Your task to perform on an android device: change the clock display to show seconds Image 0: 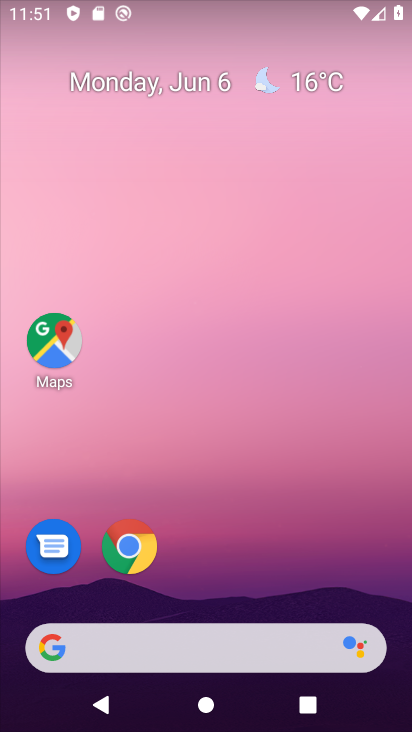
Step 0: drag from (204, 605) to (203, 107)
Your task to perform on an android device: change the clock display to show seconds Image 1: 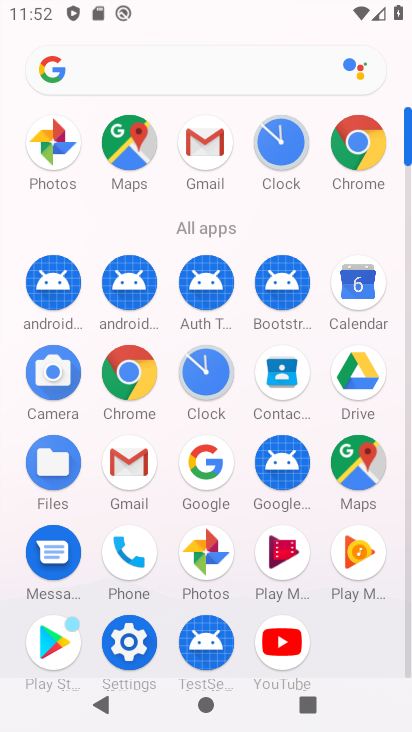
Step 1: click (215, 374)
Your task to perform on an android device: change the clock display to show seconds Image 2: 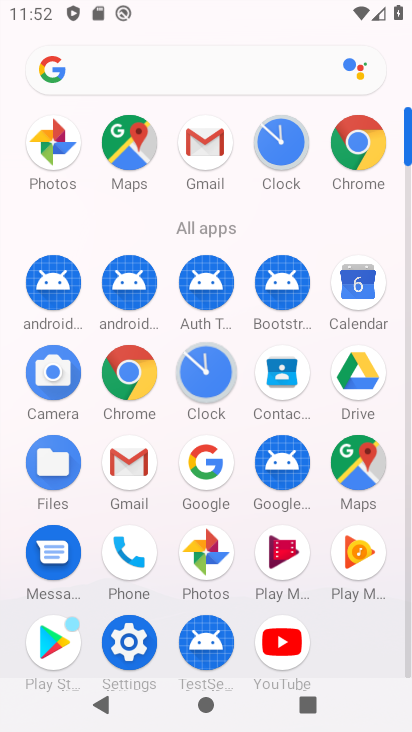
Step 2: click (215, 374)
Your task to perform on an android device: change the clock display to show seconds Image 3: 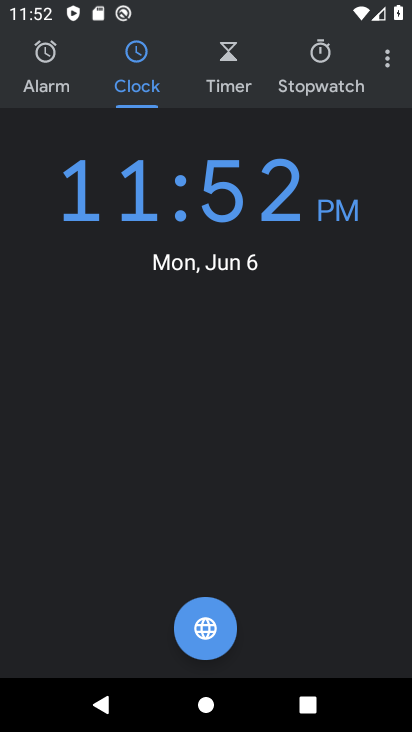
Step 3: click (392, 41)
Your task to perform on an android device: change the clock display to show seconds Image 4: 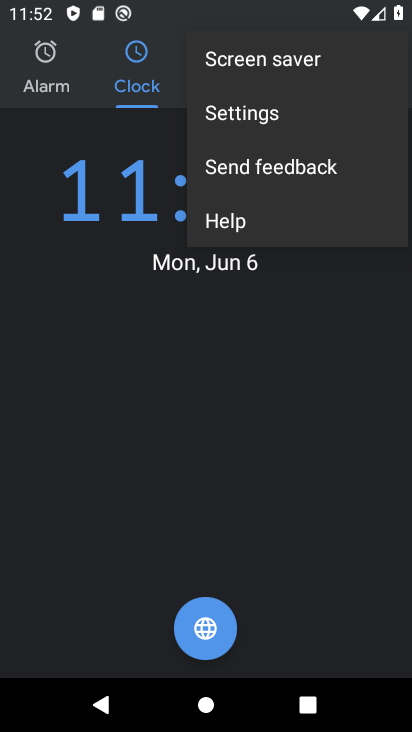
Step 4: click (268, 119)
Your task to perform on an android device: change the clock display to show seconds Image 5: 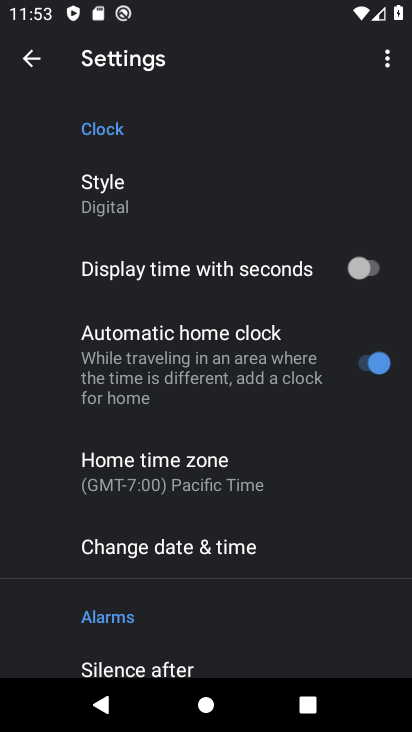
Step 5: drag from (260, 512) to (300, 84)
Your task to perform on an android device: change the clock display to show seconds Image 6: 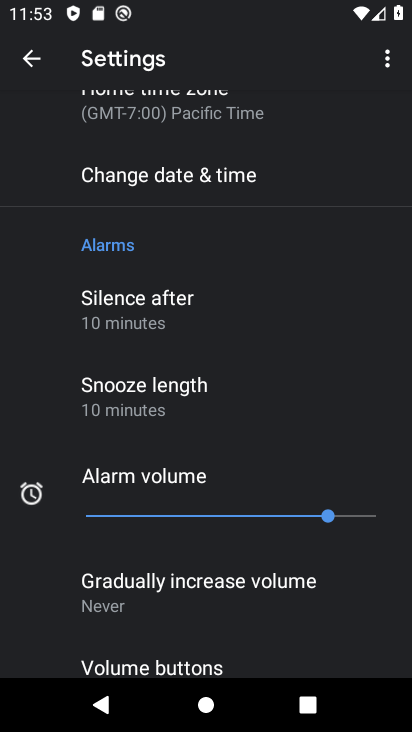
Step 6: drag from (260, 330) to (306, 731)
Your task to perform on an android device: change the clock display to show seconds Image 7: 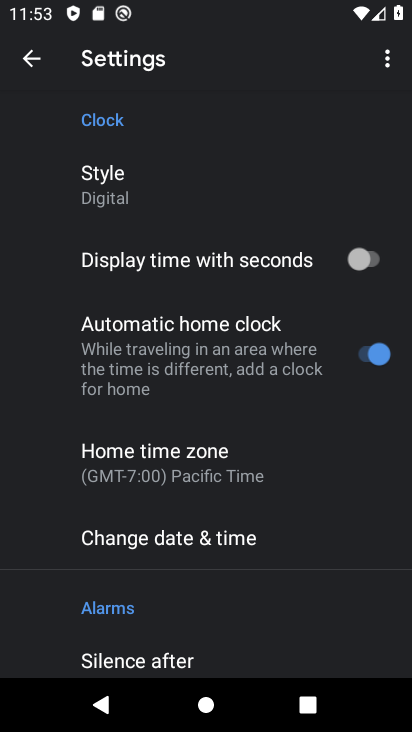
Step 7: click (352, 262)
Your task to perform on an android device: change the clock display to show seconds Image 8: 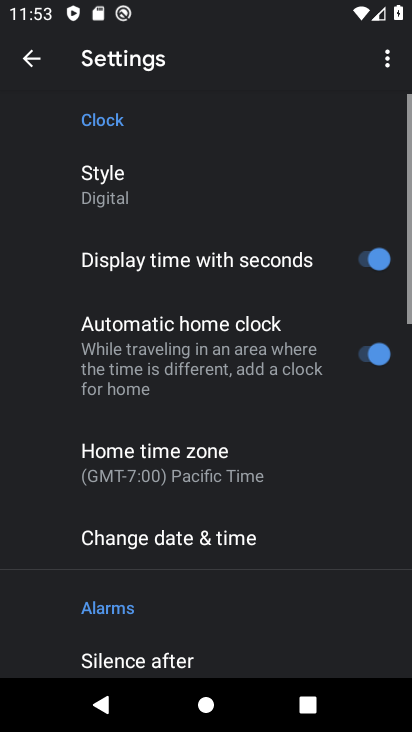
Step 8: task complete